Your task to perform on an android device: Open calendar and show me the third week of next month Image 0: 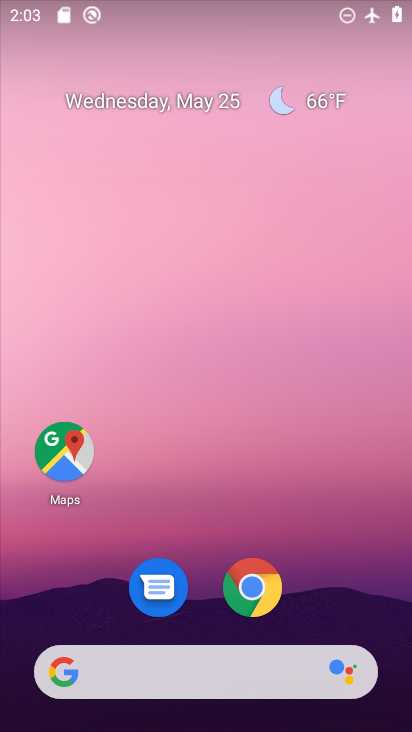
Step 0: drag from (381, 615) to (358, 135)
Your task to perform on an android device: Open calendar and show me the third week of next month Image 1: 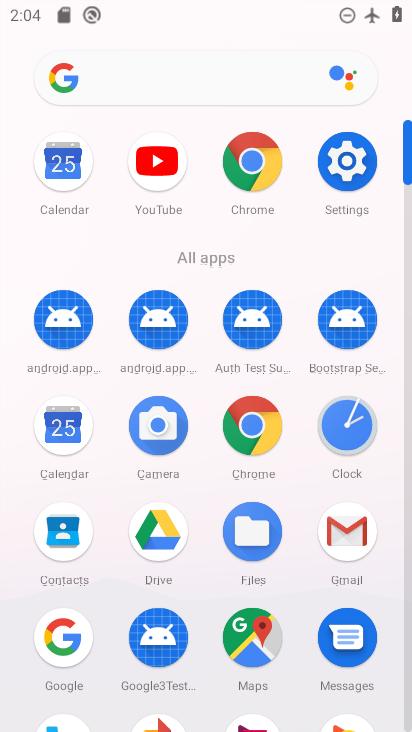
Step 1: click (69, 442)
Your task to perform on an android device: Open calendar and show me the third week of next month Image 2: 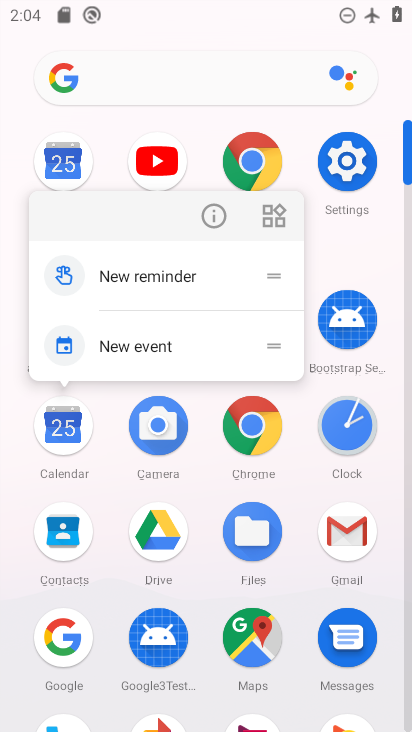
Step 2: click (69, 442)
Your task to perform on an android device: Open calendar and show me the third week of next month Image 3: 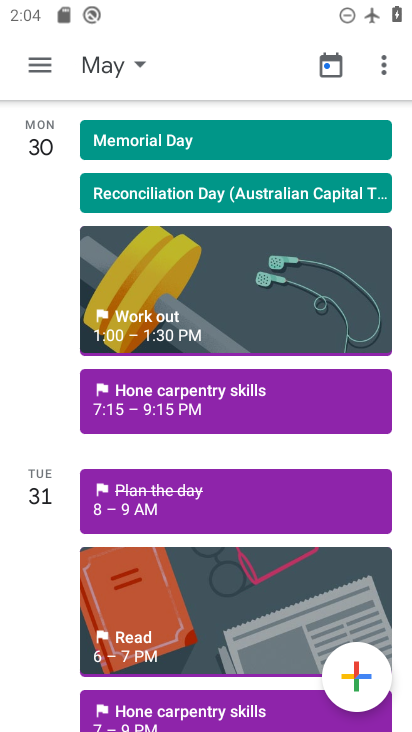
Step 3: click (153, 66)
Your task to perform on an android device: Open calendar and show me the third week of next month Image 4: 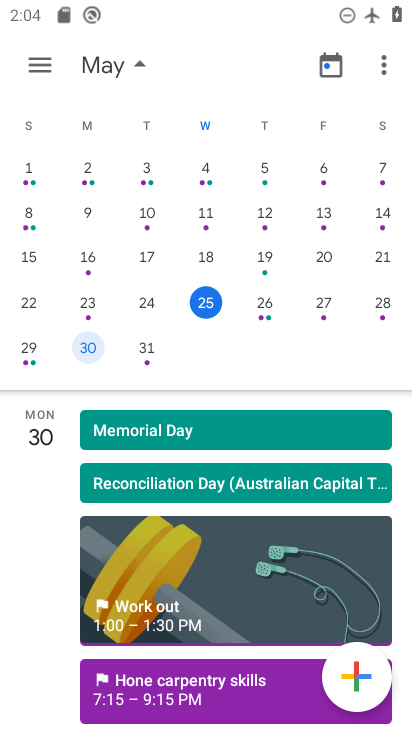
Step 4: drag from (380, 143) to (36, 142)
Your task to perform on an android device: Open calendar and show me the third week of next month Image 5: 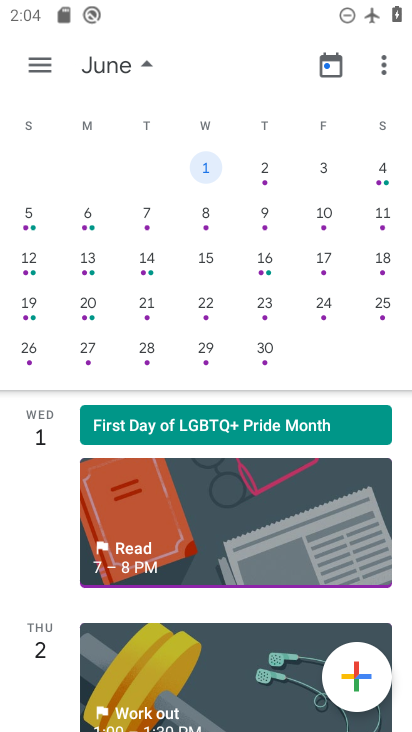
Step 5: click (93, 268)
Your task to perform on an android device: Open calendar and show me the third week of next month Image 6: 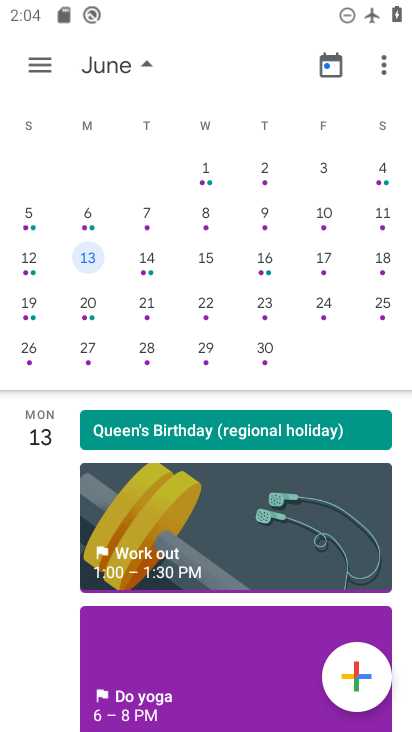
Step 6: task complete